Your task to perform on an android device: refresh tabs in the chrome app Image 0: 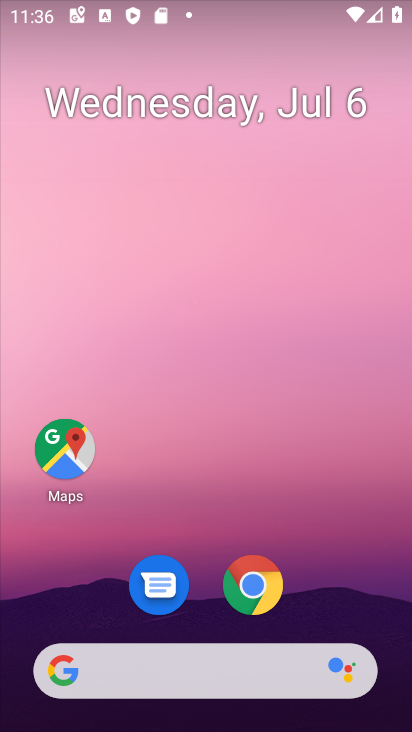
Step 0: click (249, 579)
Your task to perform on an android device: refresh tabs in the chrome app Image 1: 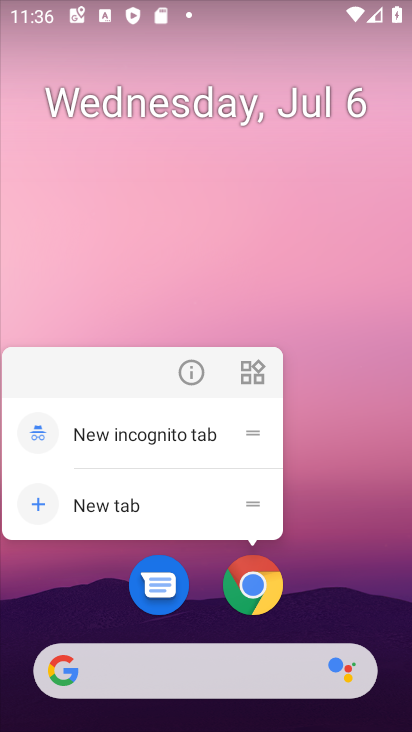
Step 1: click (249, 577)
Your task to perform on an android device: refresh tabs in the chrome app Image 2: 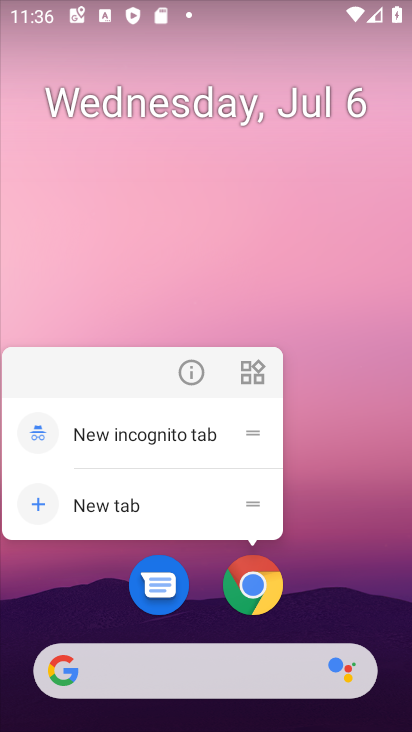
Step 2: click (249, 577)
Your task to perform on an android device: refresh tabs in the chrome app Image 3: 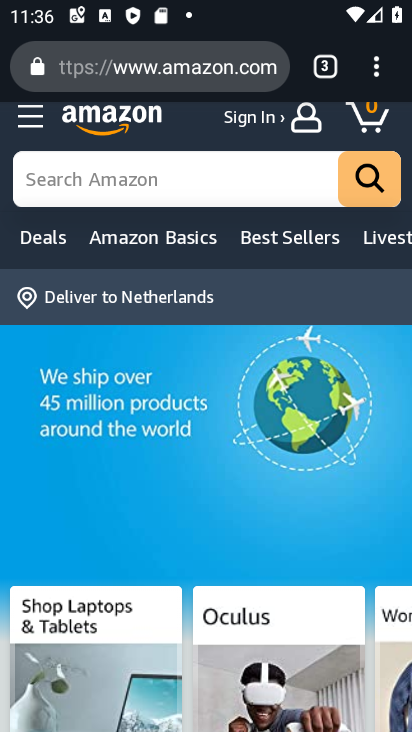
Step 3: click (379, 64)
Your task to perform on an android device: refresh tabs in the chrome app Image 4: 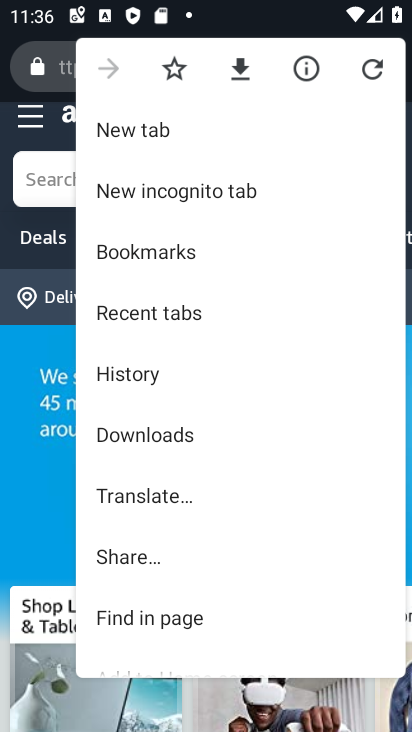
Step 4: click (372, 64)
Your task to perform on an android device: refresh tabs in the chrome app Image 5: 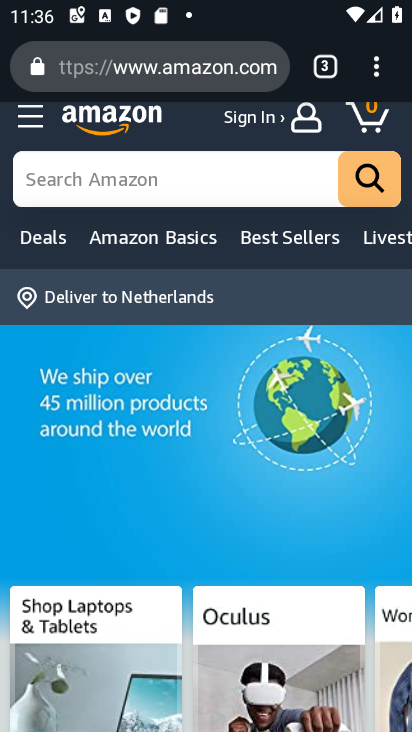
Step 5: task complete